Your task to perform on an android device: Open settings on Google Maps Image 0: 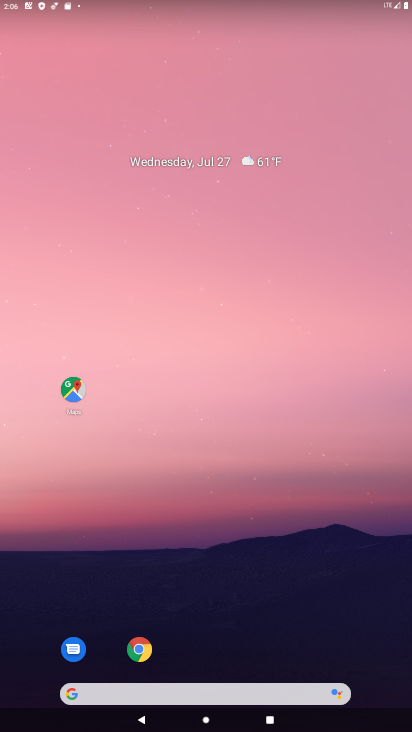
Step 0: click (70, 395)
Your task to perform on an android device: Open settings on Google Maps Image 1: 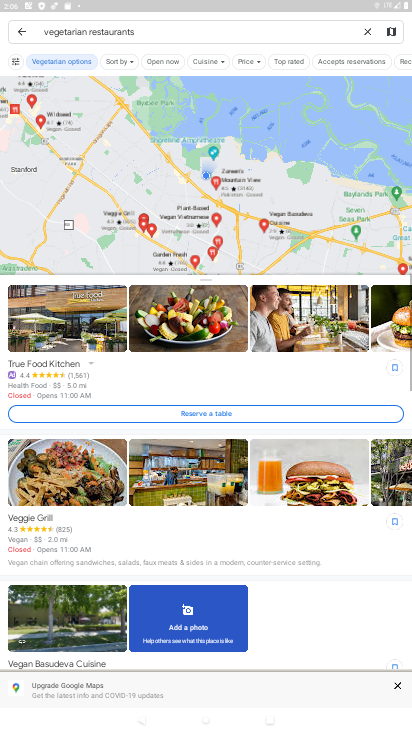
Step 1: click (19, 27)
Your task to perform on an android device: Open settings on Google Maps Image 2: 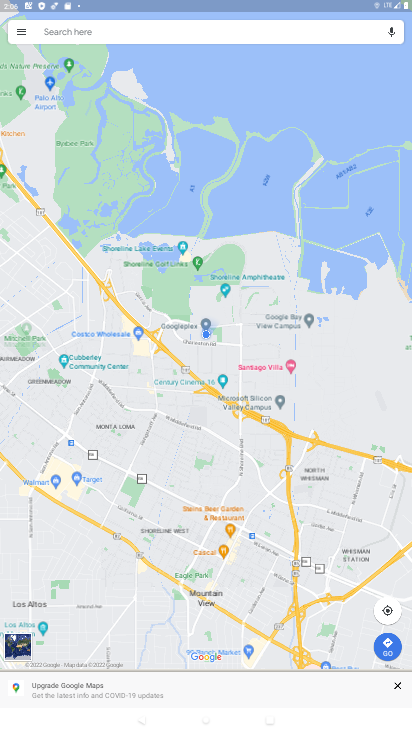
Step 2: click (21, 34)
Your task to perform on an android device: Open settings on Google Maps Image 3: 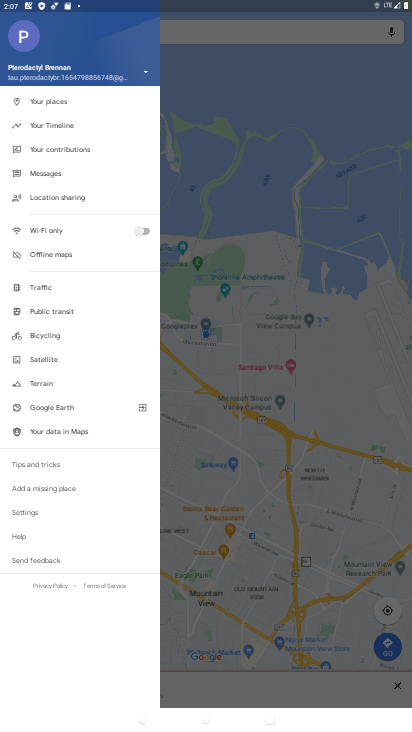
Step 3: click (30, 510)
Your task to perform on an android device: Open settings on Google Maps Image 4: 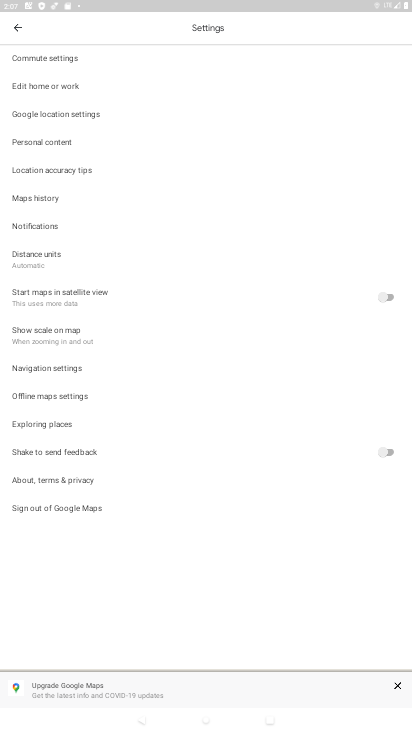
Step 4: task complete